Your task to perform on an android device: Open Chrome and go to settings Image 0: 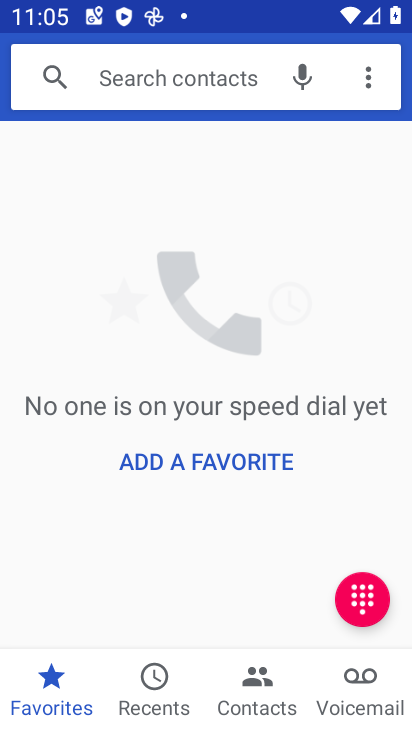
Step 0: press home button
Your task to perform on an android device: Open Chrome and go to settings Image 1: 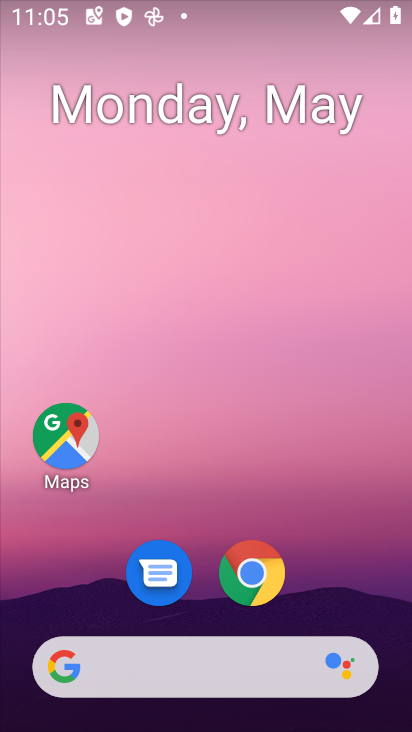
Step 1: click (266, 565)
Your task to perform on an android device: Open Chrome and go to settings Image 2: 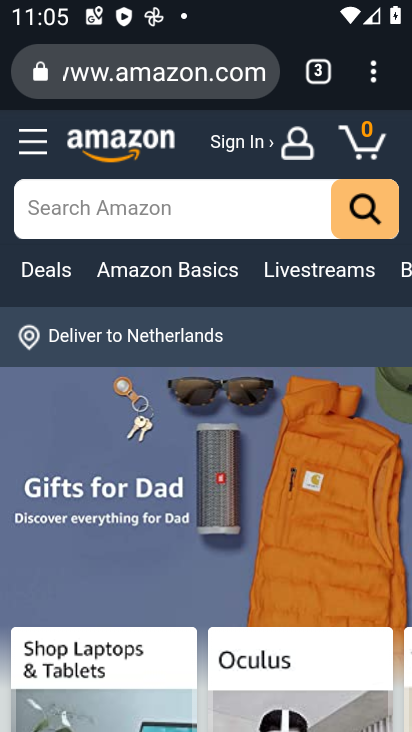
Step 2: click (375, 60)
Your task to perform on an android device: Open Chrome and go to settings Image 3: 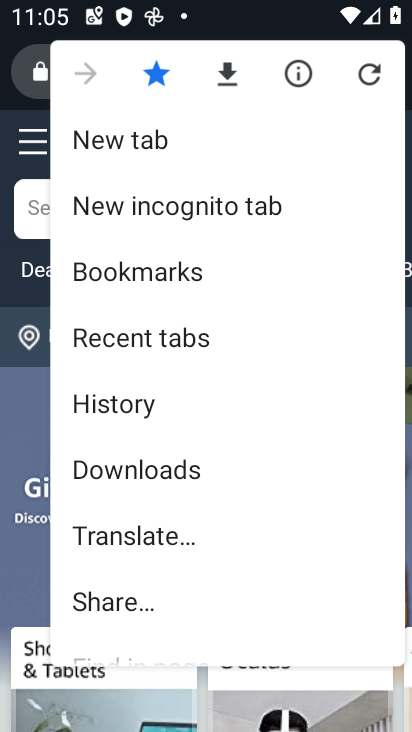
Step 3: drag from (194, 545) to (170, 262)
Your task to perform on an android device: Open Chrome and go to settings Image 4: 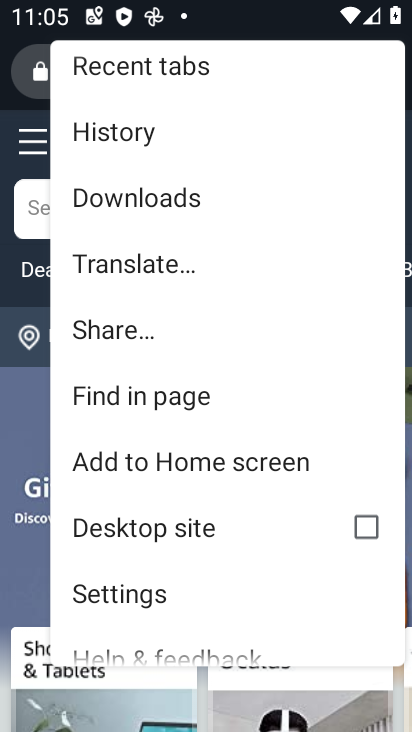
Step 4: click (153, 589)
Your task to perform on an android device: Open Chrome and go to settings Image 5: 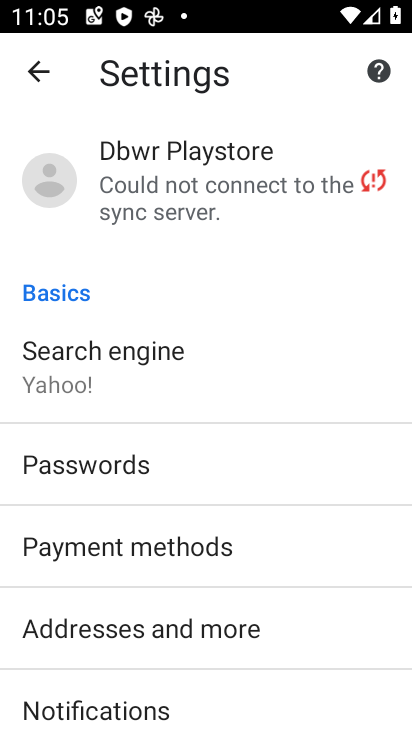
Step 5: task complete